Your task to perform on an android device: Open calendar and show me the second week of next month Image 0: 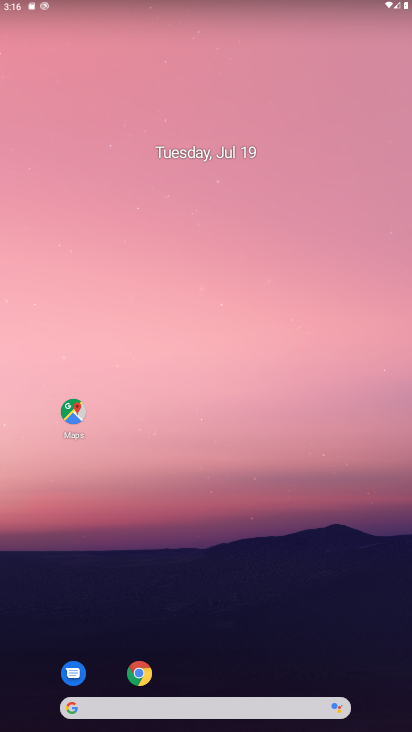
Step 0: drag from (185, 659) to (153, 155)
Your task to perform on an android device: Open calendar and show me the second week of next month Image 1: 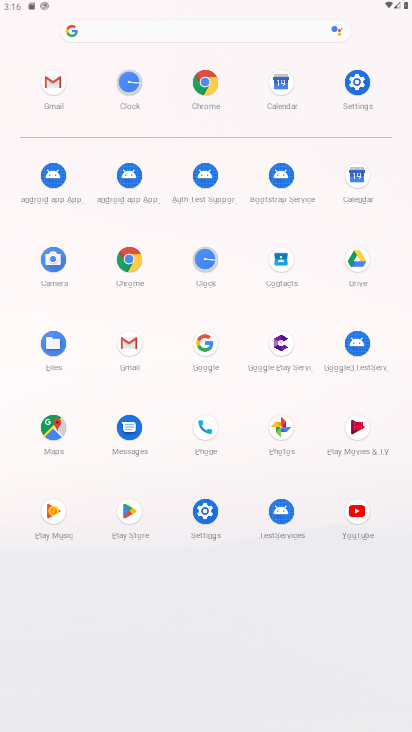
Step 1: click (365, 185)
Your task to perform on an android device: Open calendar and show me the second week of next month Image 2: 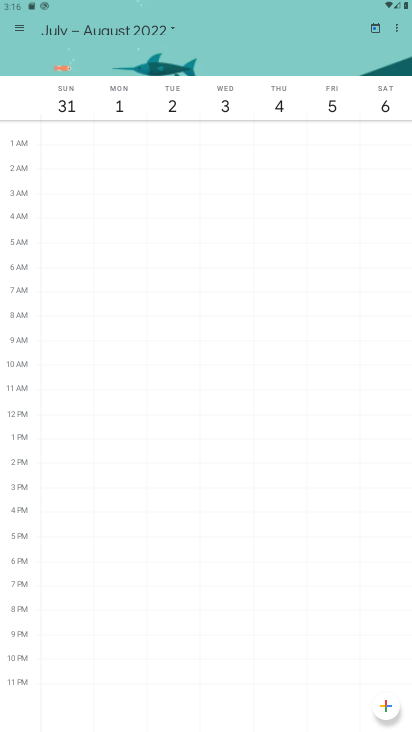
Step 2: task complete